Your task to perform on an android device: Set the phone to "Do not disturb". Image 0: 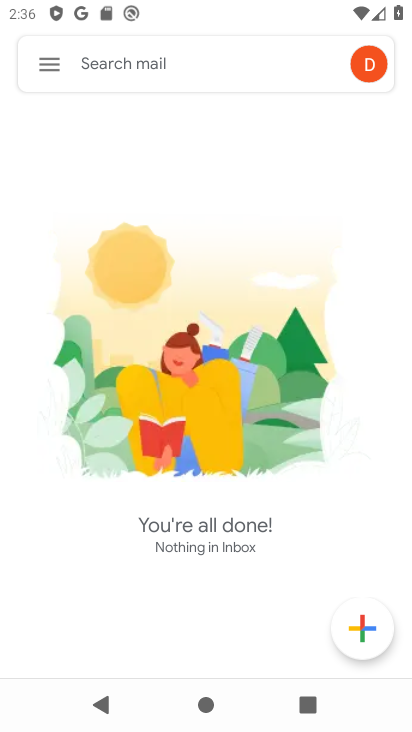
Step 0: press home button
Your task to perform on an android device: Set the phone to "Do not disturb". Image 1: 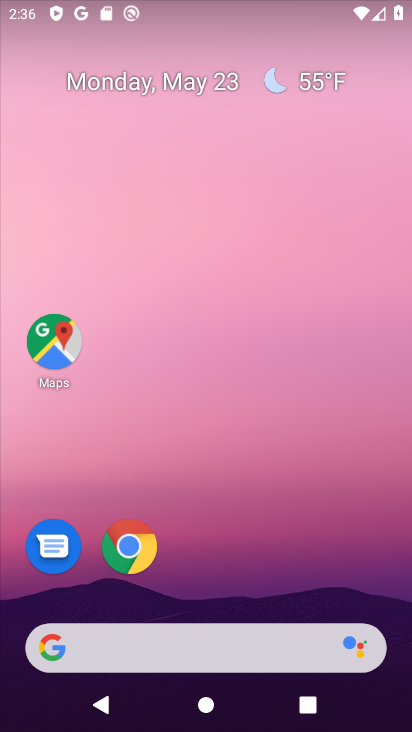
Step 1: drag from (293, 535) to (293, 133)
Your task to perform on an android device: Set the phone to "Do not disturb". Image 2: 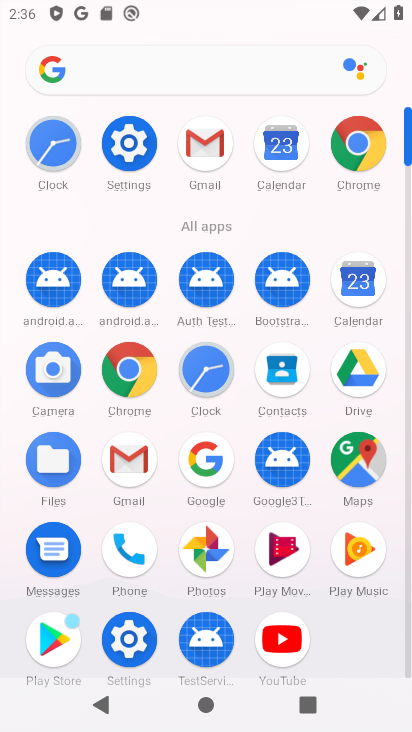
Step 2: click (112, 153)
Your task to perform on an android device: Set the phone to "Do not disturb". Image 3: 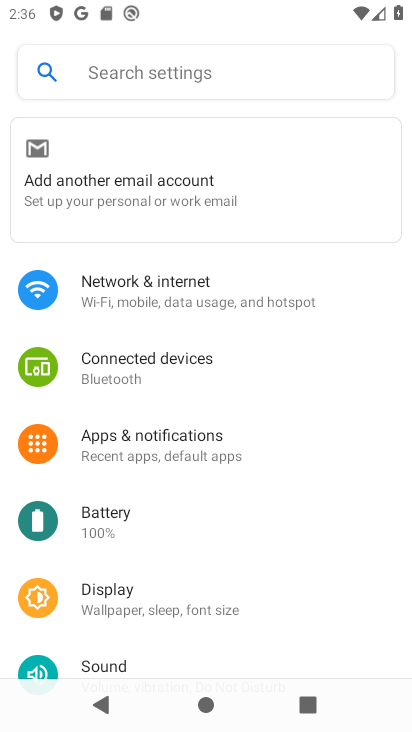
Step 3: drag from (165, 635) to (235, 424)
Your task to perform on an android device: Set the phone to "Do not disturb". Image 4: 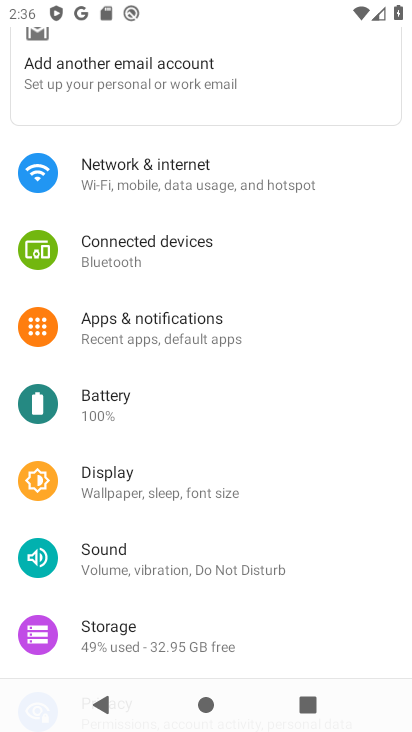
Step 4: click (191, 563)
Your task to perform on an android device: Set the phone to "Do not disturb". Image 5: 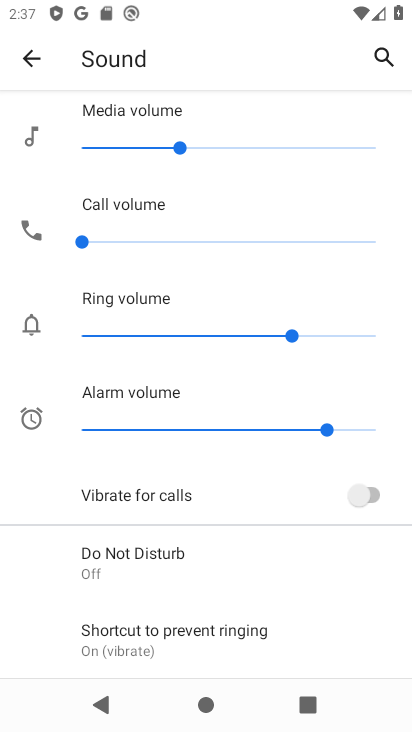
Step 5: task complete